Your task to perform on an android device: Do I have any events today? Image 0: 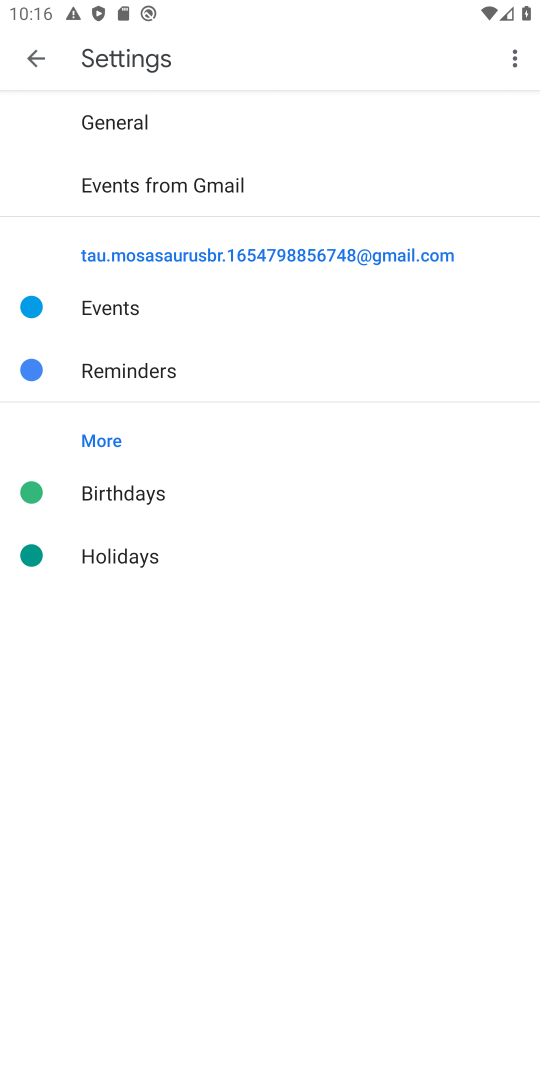
Step 0: click (38, 57)
Your task to perform on an android device: Do I have any events today? Image 1: 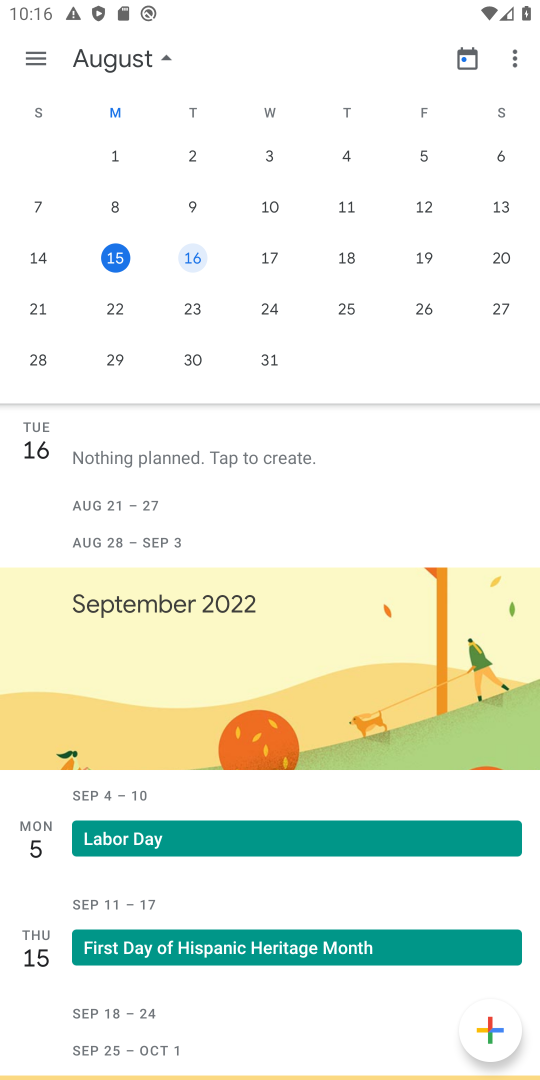
Step 1: click (106, 254)
Your task to perform on an android device: Do I have any events today? Image 2: 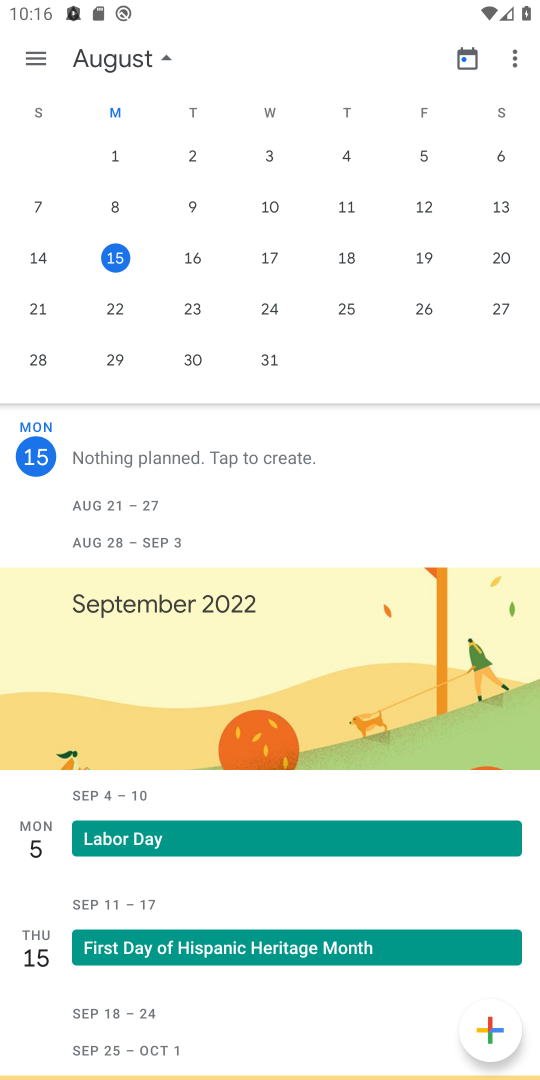
Step 2: task complete